Your task to perform on an android device: Search for vegetarian restaurants on Maps Image 0: 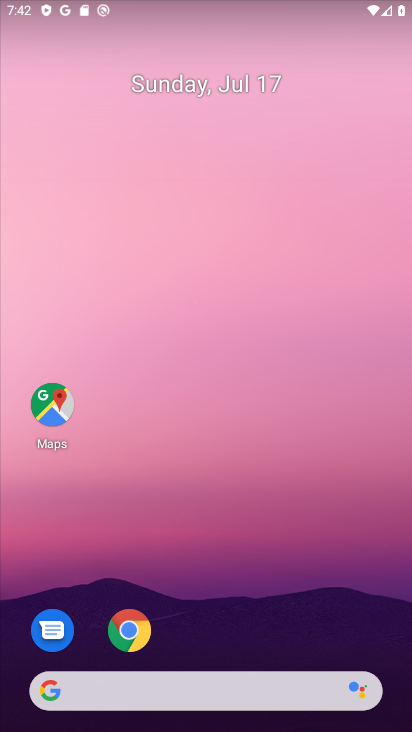
Step 0: click (58, 413)
Your task to perform on an android device: Search for vegetarian restaurants on Maps Image 1: 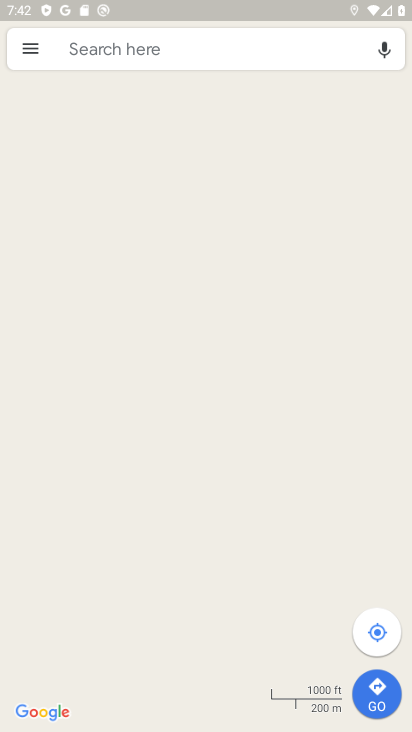
Step 1: click (182, 50)
Your task to perform on an android device: Search for vegetarian restaurants on Maps Image 2: 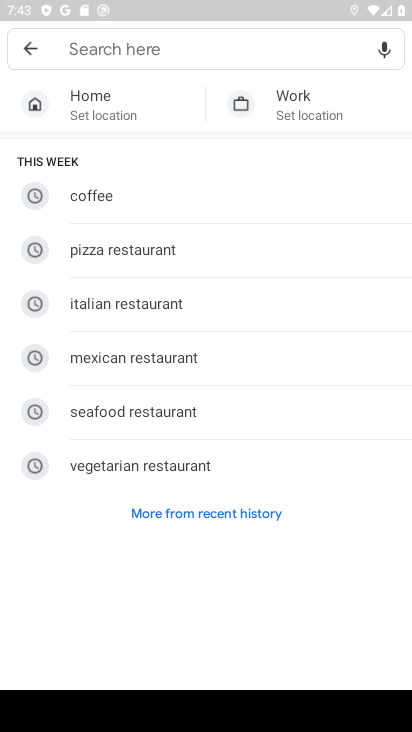
Step 2: type "vegetarian restaurants"
Your task to perform on an android device: Search for vegetarian restaurants on Maps Image 3: 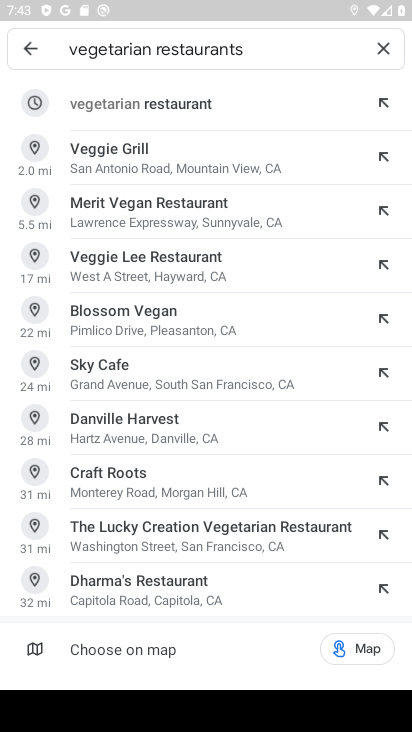
Step 3: click (158, 104)
Your task to perform on an android device: Search for vegetarian restaurants on Maps Image 4: 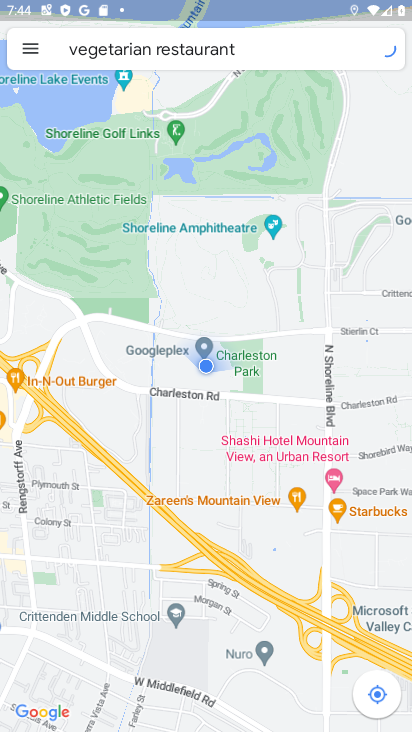
Step 4: task complete